Your task to perform on an android device: Empty the shopping cart on bestbuy. Search for alienware aurora on bestbuy, select the first entry, and add it to the cart. Image 0: 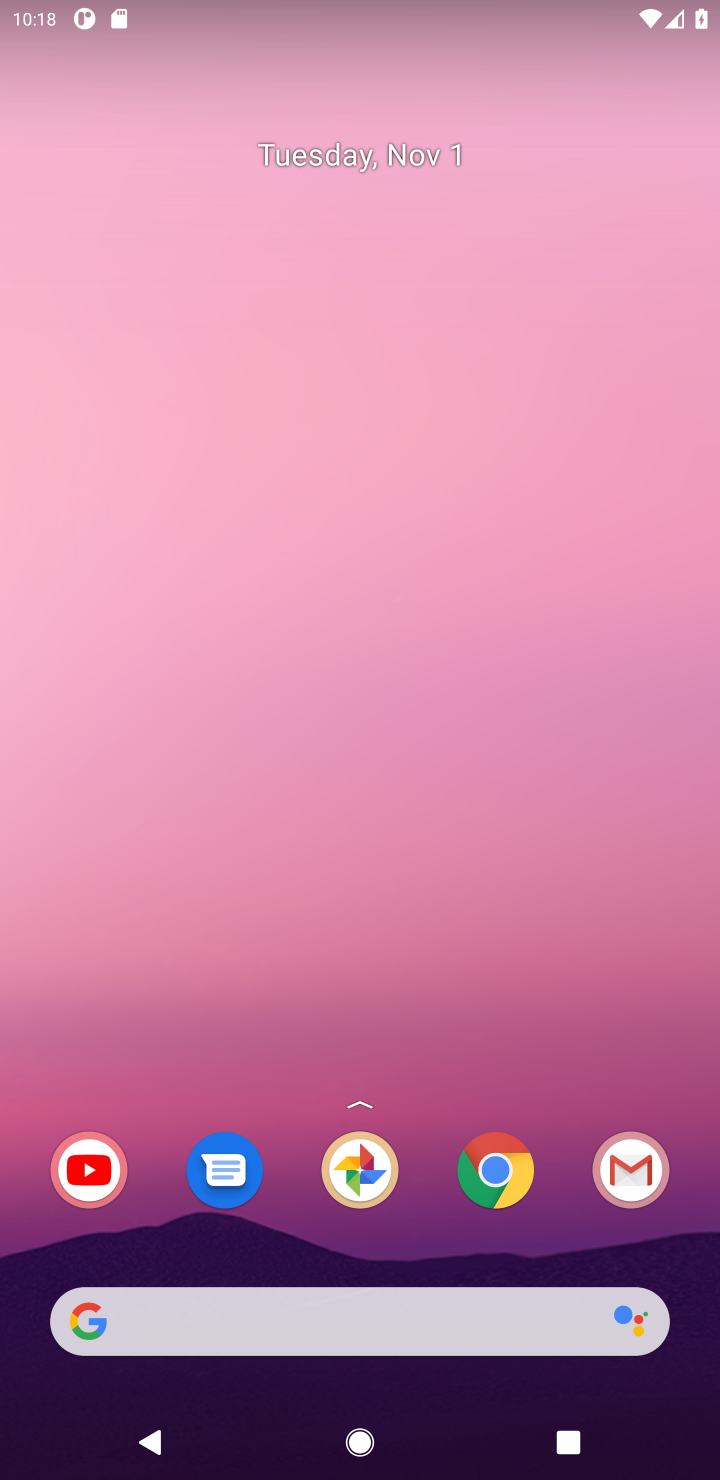
Step 0: click (528, 1179)
Your task to perform on an android device: Empty the shopping cart on bestbuy. Search for alienware aurora on bestbuy, select the first entry, and add it to the cart. Image 1: 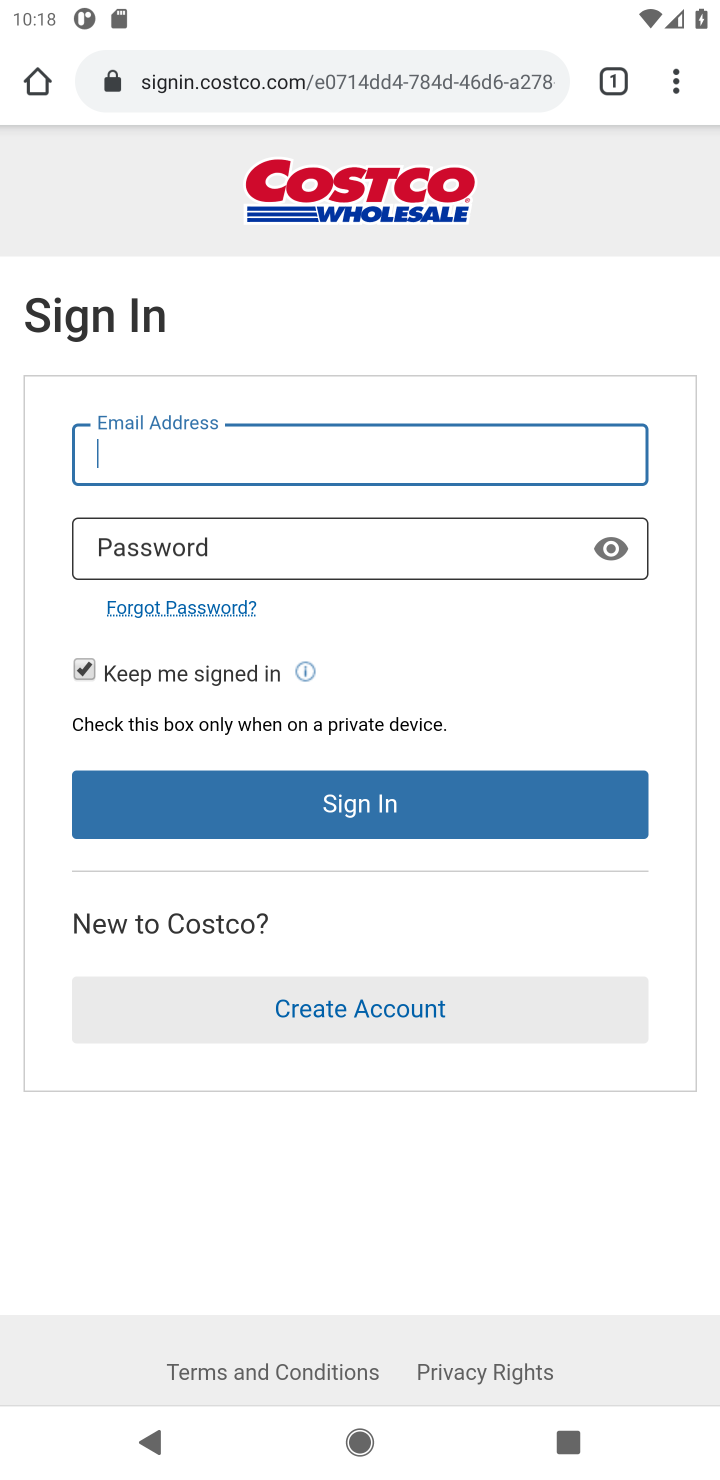
Step 1: click (382, 60)
Your task to perform on an android device: Empty the shopping cart on bestbuy. Search for alienware aurora on bestbuy, select the first entry, and add it to the cart. Image 2: 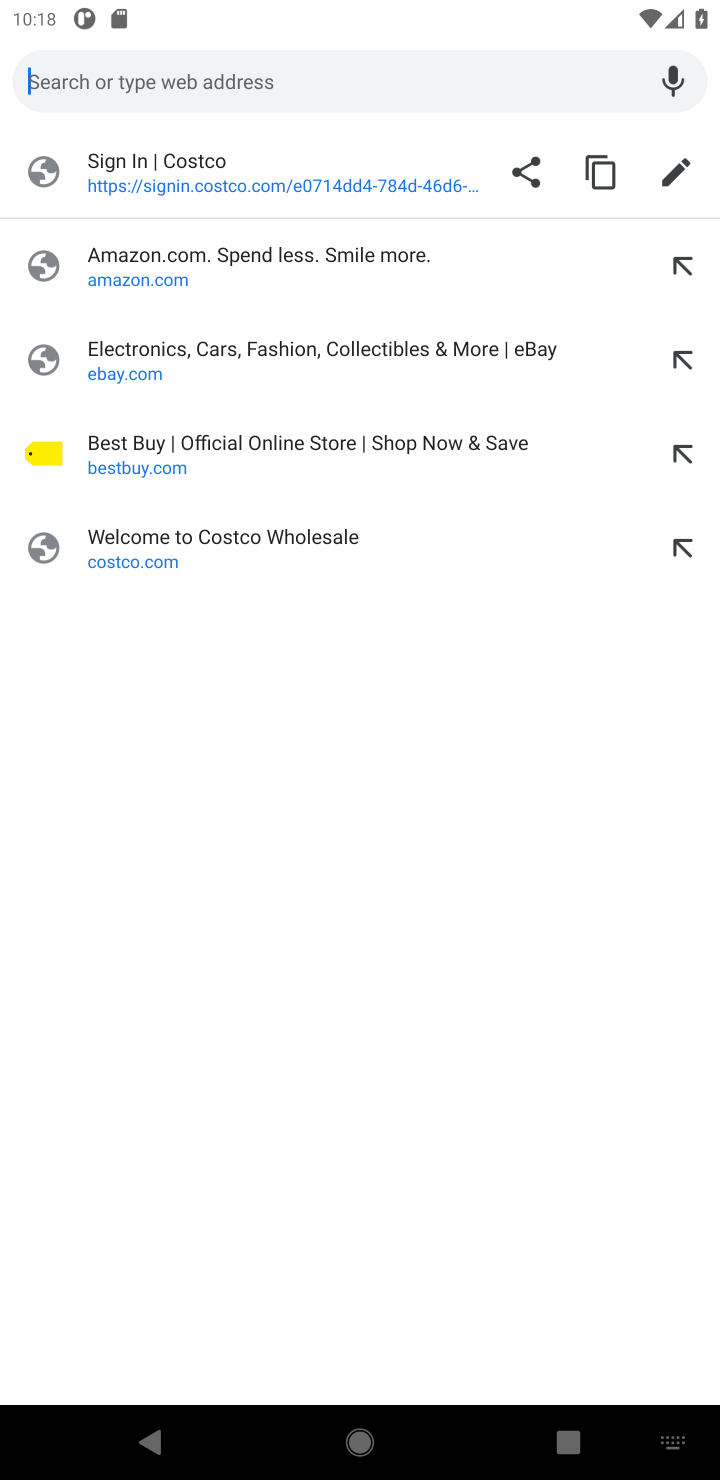
Step 2: type "bestbuy"
Your task to perform on an android device: Empty the shopping cart on bestbuy. Search for alienware aurora on bestbuy, select the first entry, and add it to the cart. Image 3: 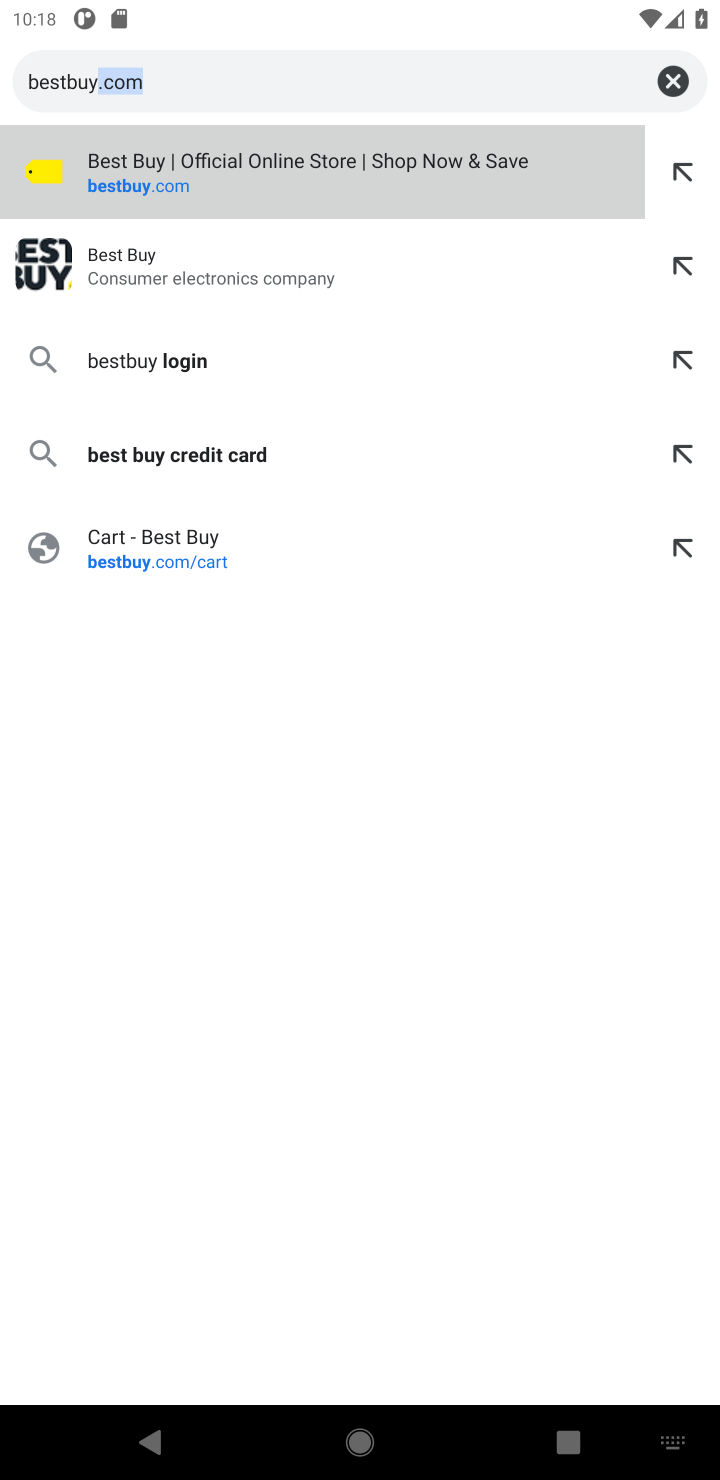
Step 3: type ""
Your task to perform on an android device: Empty the shopping cart on bestbuy. Search for alienware aurora on bestbuy, select the first entry, and add it to the cart. Image 4: 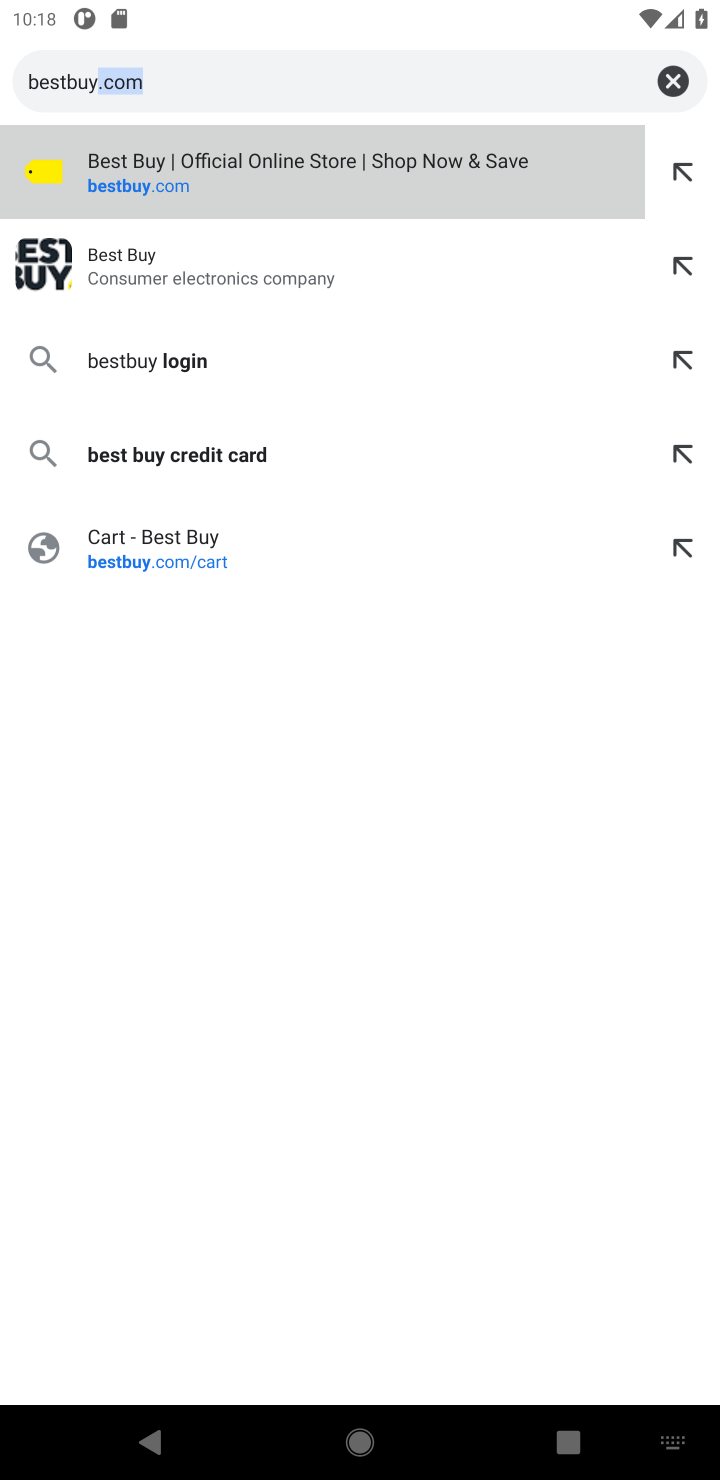
Step 4: press enter
Your task to perform on an android device: Empty the shopping cart on bestbuy. Search for alienware aurora on bestbuy, select the first entry, and add it to the cart. Image 5: 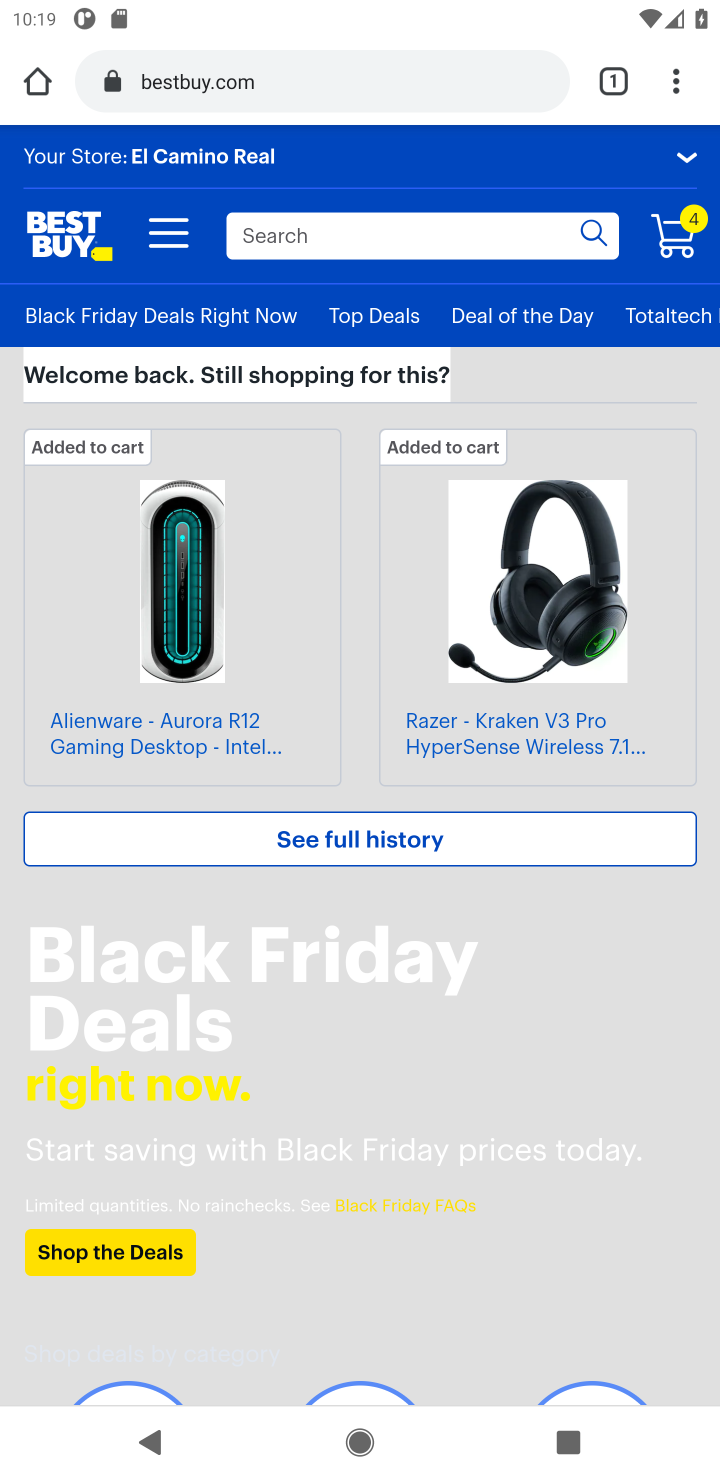
Step 5: click (675, 244)
Your task to perform on an android device: Empty the shopping cart on bestbuy. Search for alienware aurora on bestbuy, select the first entry, and add it to the cart. Image 6: 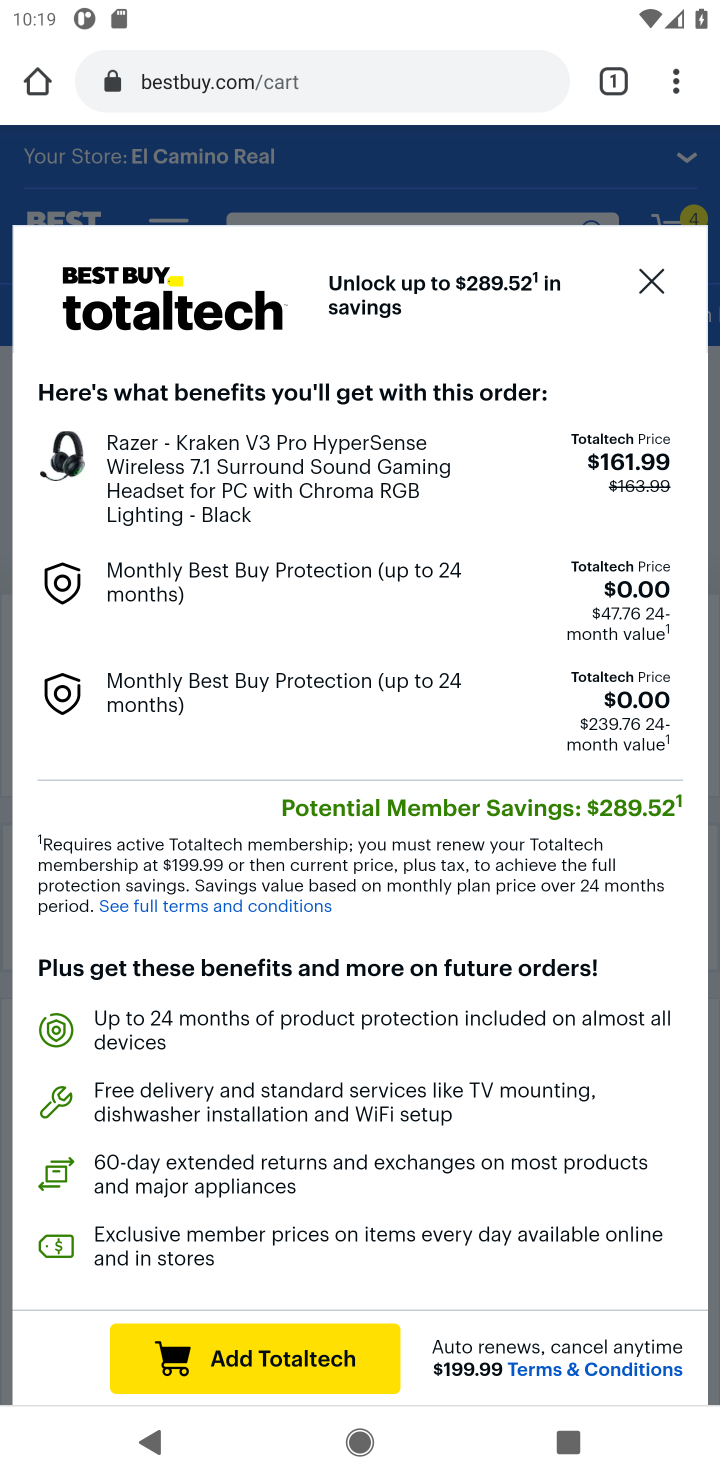
Step 6: click (638, 290)
Your task to perform on an android device: Empty the shopping cart on bestbuy. Search for alienware aurora on bestbuy, select the first entry, and add it to the cart. Image 7: 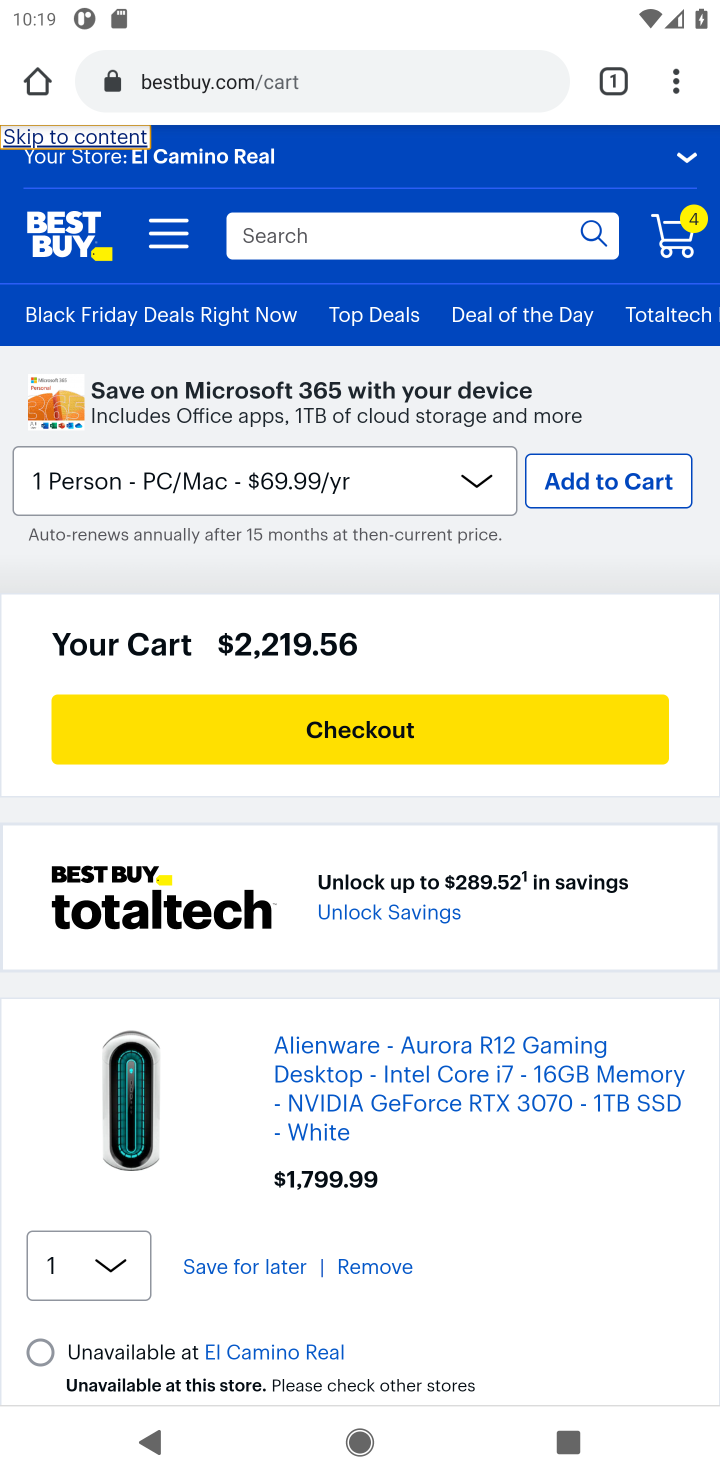
Step 7: click (368, 1273)
Your task to perform on an android device: Empty the shopping cart on bestbuy. Search for alienware aurora on bestbuy, select the first entry, and add it to the cart. Image 8: 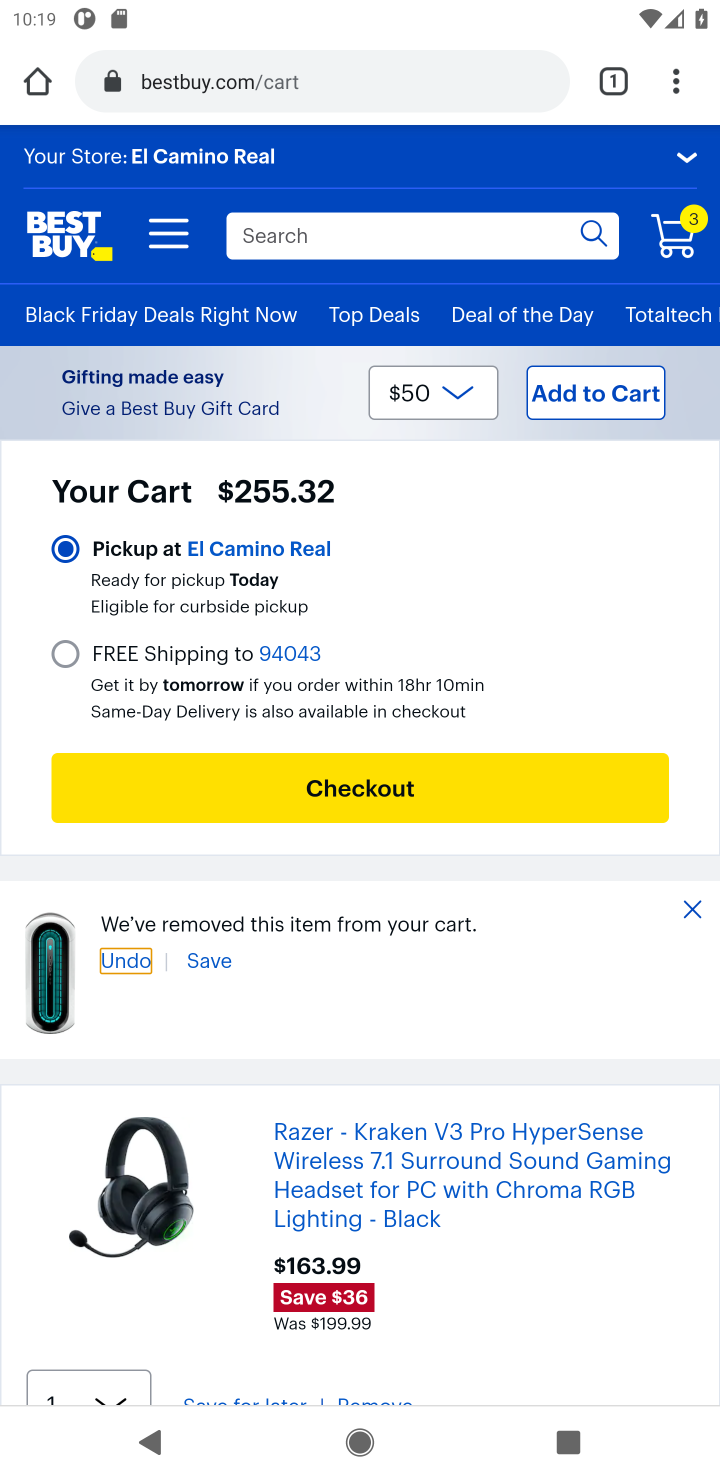
Step 8: drag from (406, 1285) to (403, 906)
Your task to perform on an android device: Empty the shopping cart on bestbuy. Search for alienware aurora on bestbuy, select the first entry, and add it to the cart. Image 9: 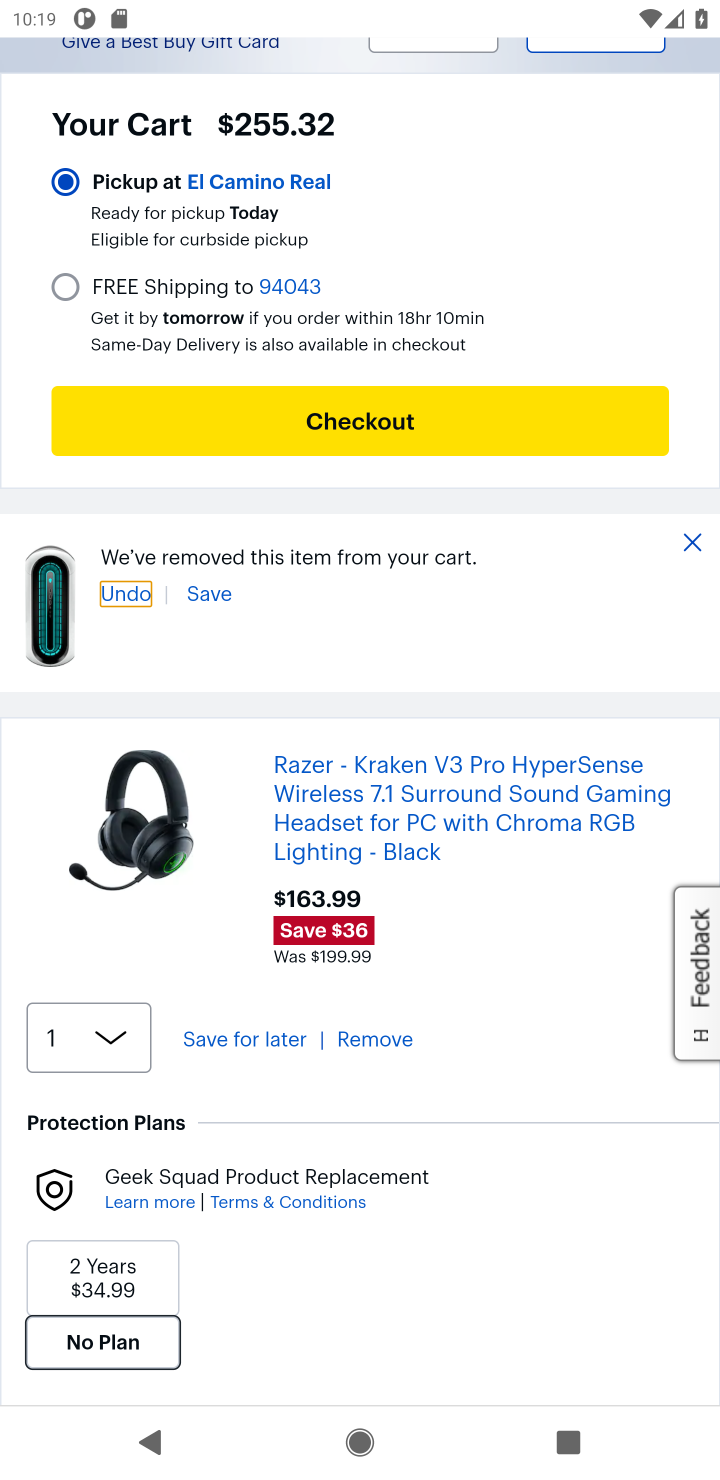
Step 9: click (365, 1066)
Your task to perform on an android device: Empty the shopping cart on bestbuy. Search for alienware aurora on bestbuy, select the first entry, and add it to the cart. Image 10: 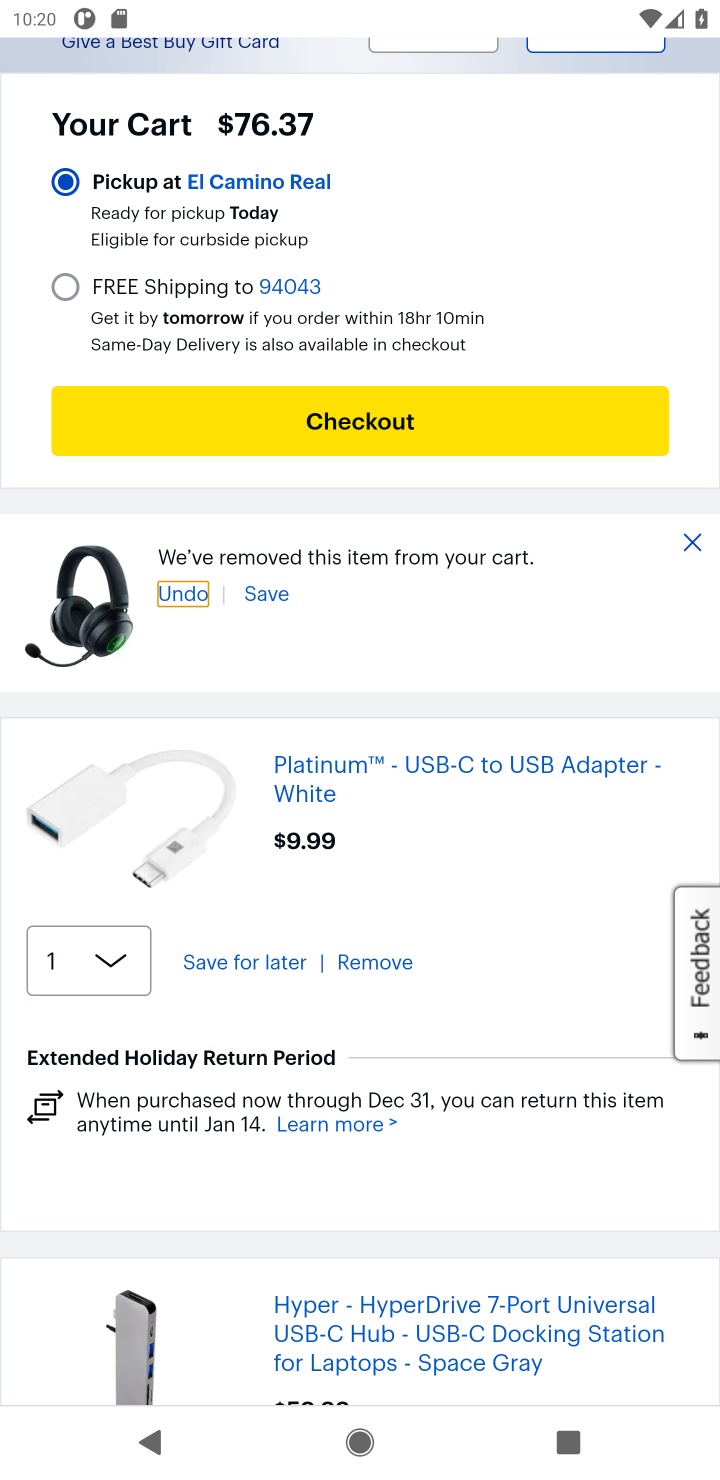
Step 10: click (375, 965)
Your task to perform on an android device: Empty the shopping cart on bestbuy. Search for alienware aurora on bestbuy, select the first entry, and add it to the cart. Image 11: 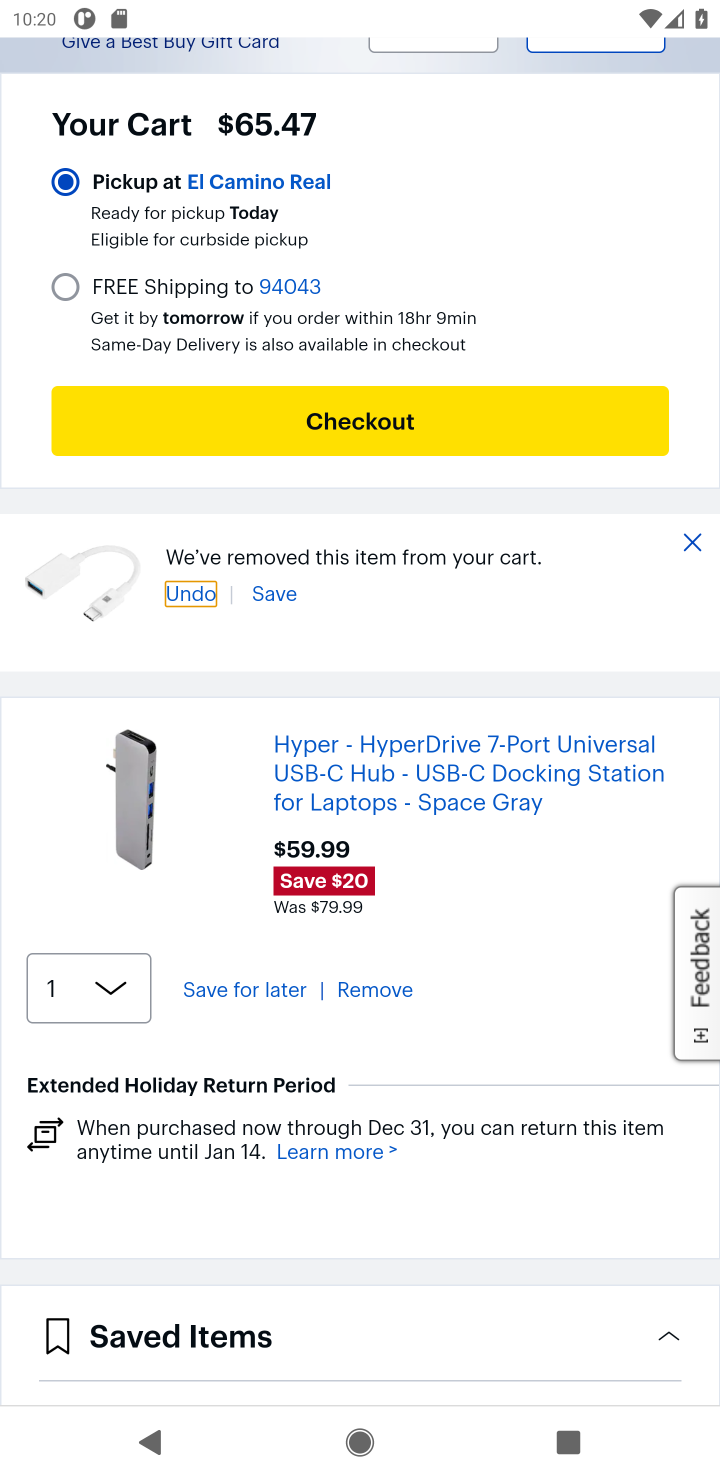
Step 11: click (377, 997)
Your task to perform on an android device: Empty the shopping cart on bestbuy. Search for alienware aurora on bestbuy, select the first entry, and add it to the cart. Image 12: 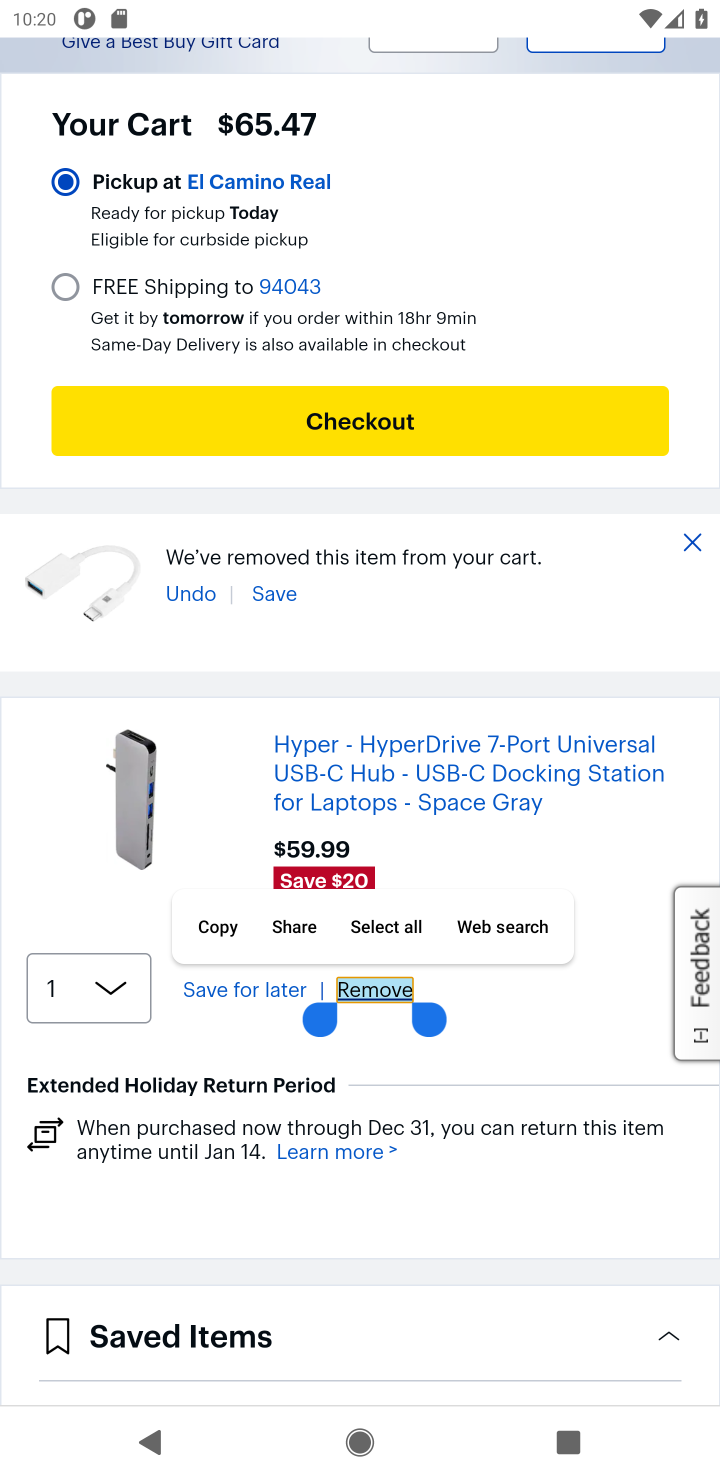
Step 12: click (383, 1029)
Your task to perform on an android device: Empty the shopping cart on bestbuy. Search for alienware aurora on bestbuy, select the first entry, and add it to the cart. Image 13: 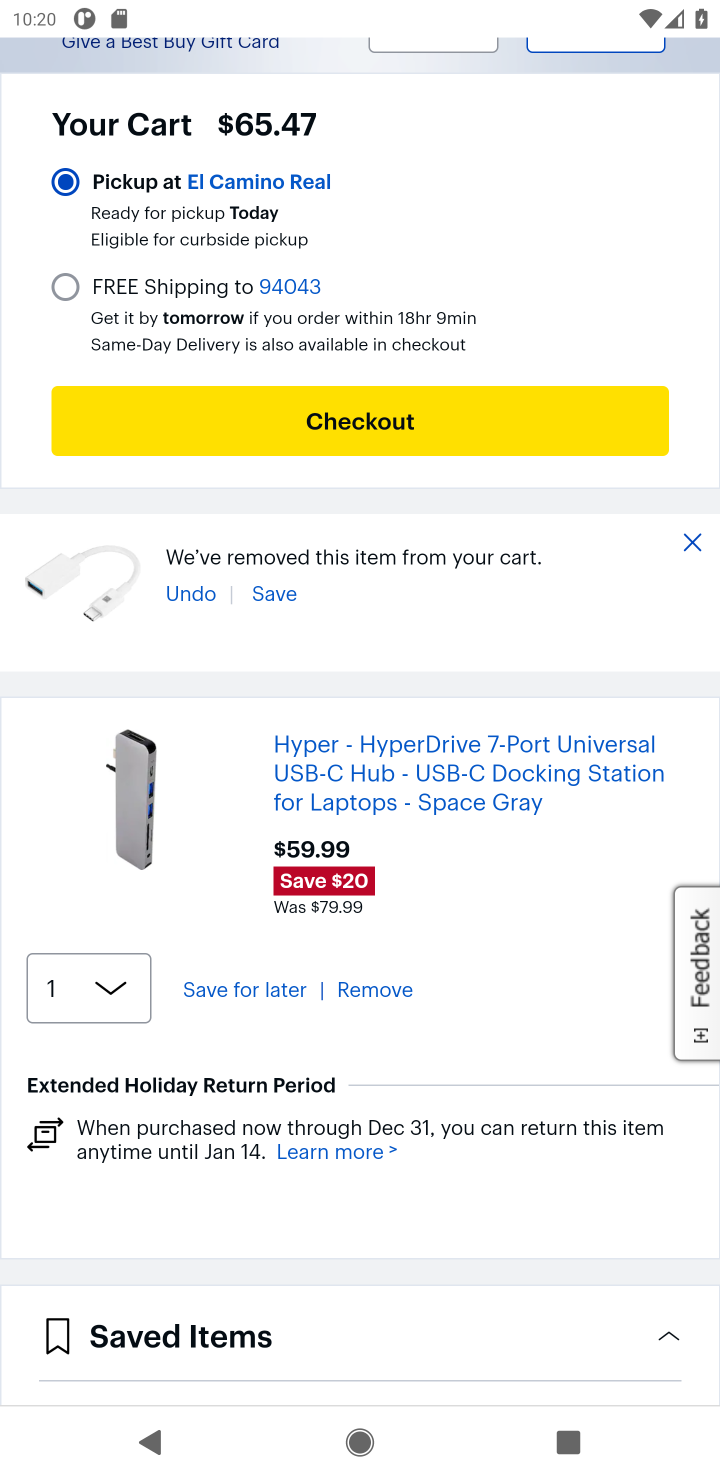
Step 13: click (377, 994)
Your task to perform on an android device: Empty the shopping cart on bestbuy. Search for alienware aurora on bestbuy, select the first entry, and add it to the cart. Image 14: 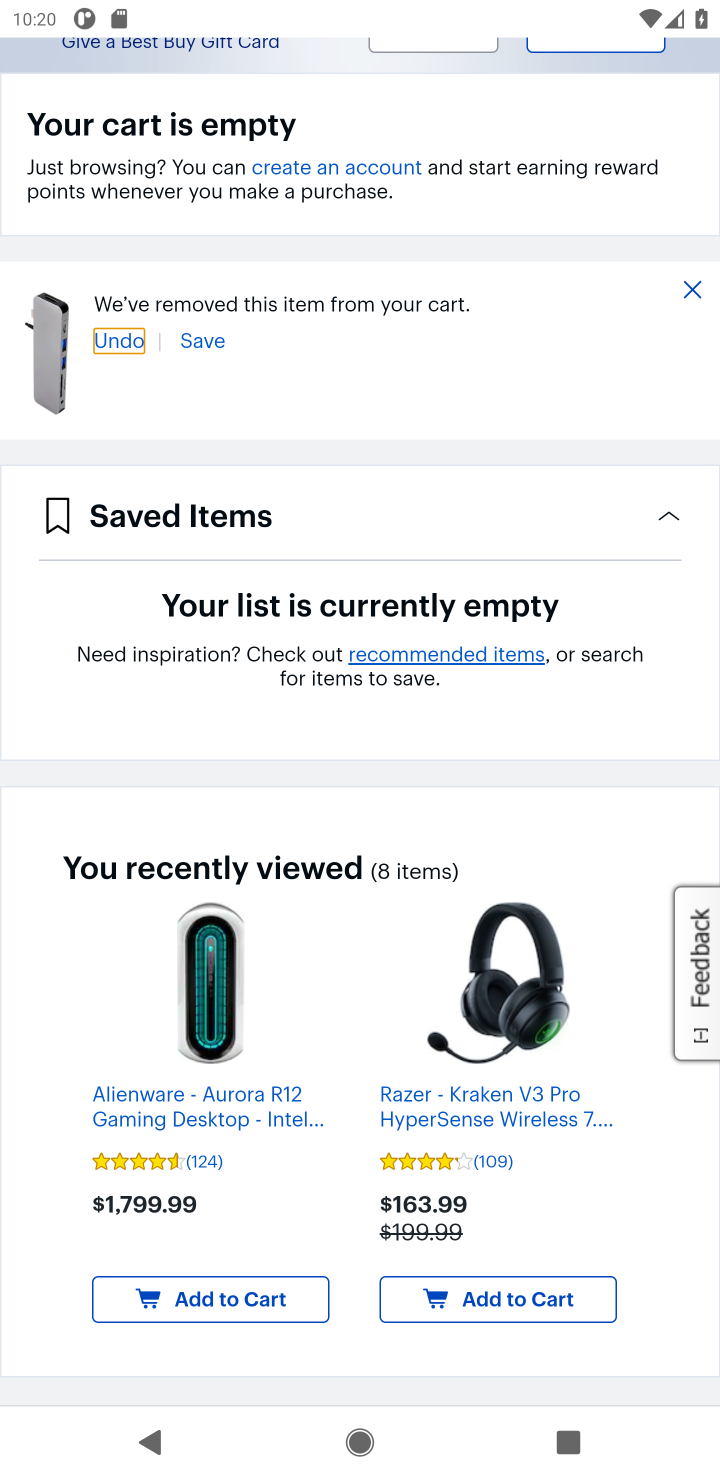
Step 14: drag from (369, 453) to (407, 744)
Your task to perform on an android device: Empty the shopping cart on bestbuy. Search for alienware aurora on bestbuy, select the first entry, and add it to the cart. Image 15: 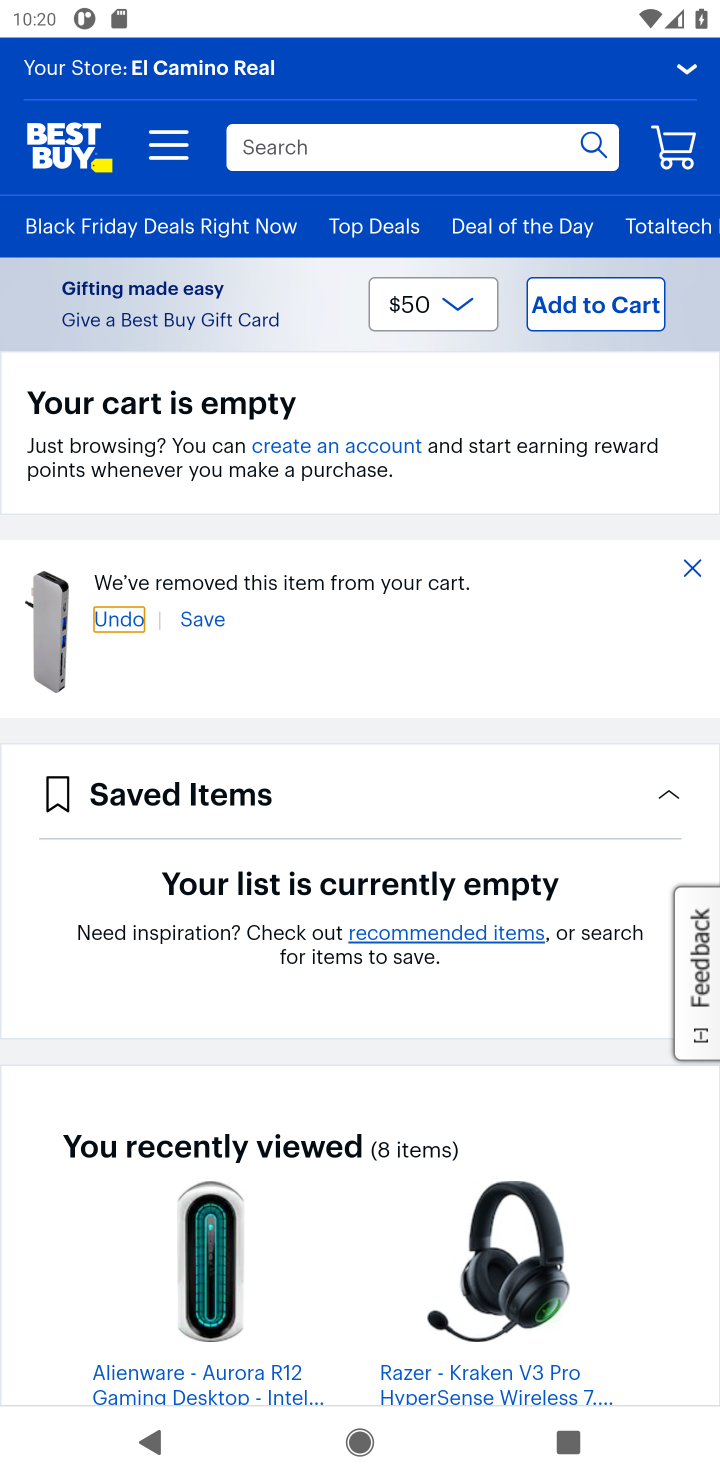
Step 15: click (366, 151)
Your task to perform on an android device: Empty the shopping cart on bestbuy. Search for alienware aurora on bestbuy, select the first entry, and add it to the cart. Image 16: 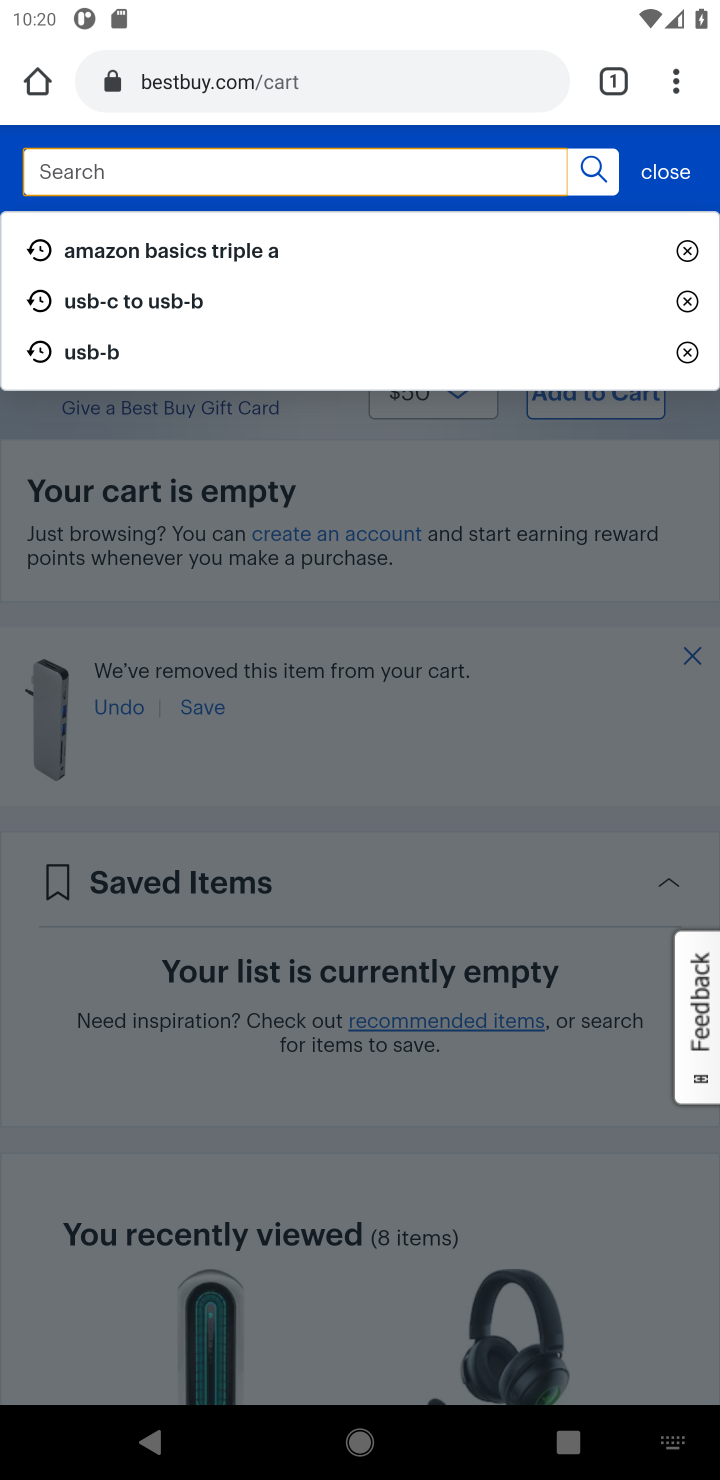
Step 16: type "alienware aurora"
Your task to perform on an android device: Empty the shopping cart on bestbuy. Search for alienware aurora on bestbuy, select the first entry, and add it to the cart. Image 17: 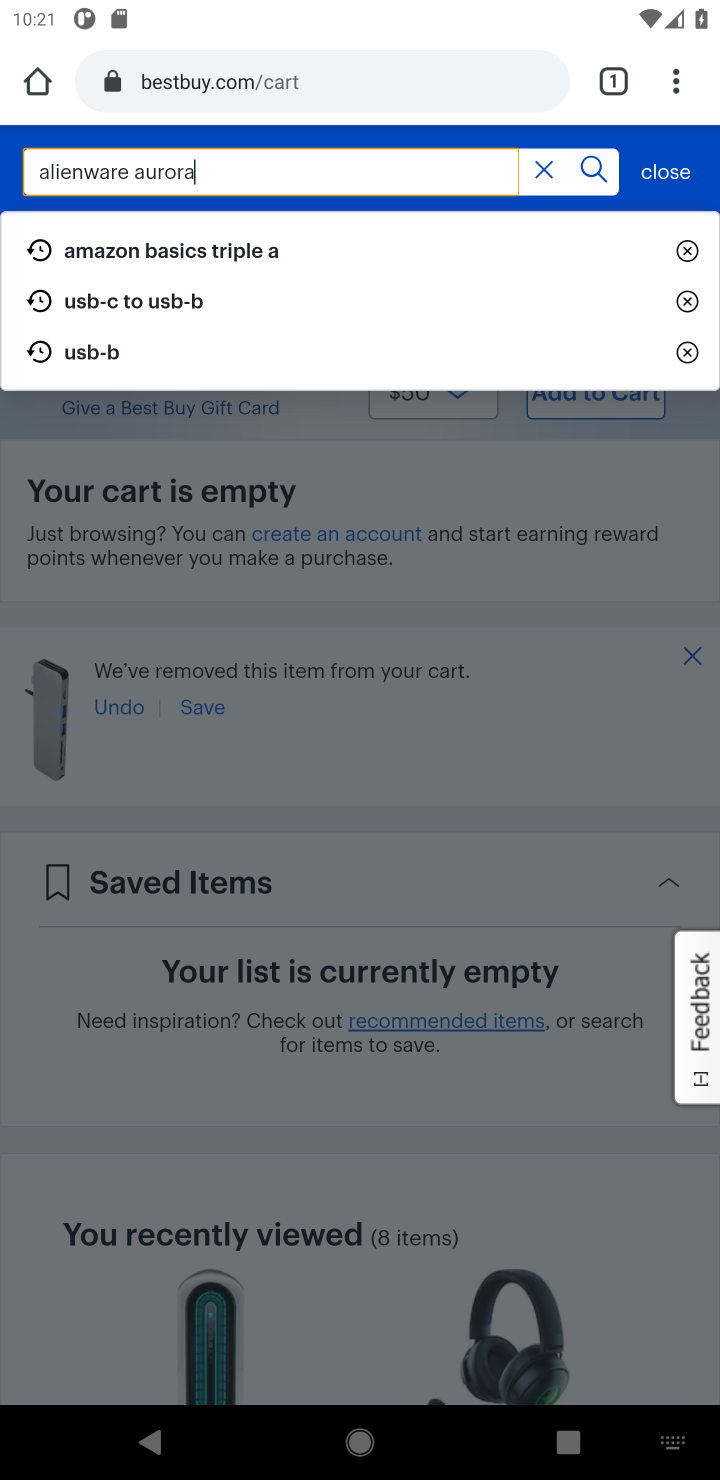
Step 17: type ""
Your task to perform on an android device: Empty the shopping cart on bestbuy. Search for alienware aurora on bestbuy, select the first entry, and add it to the cart. Image 18: 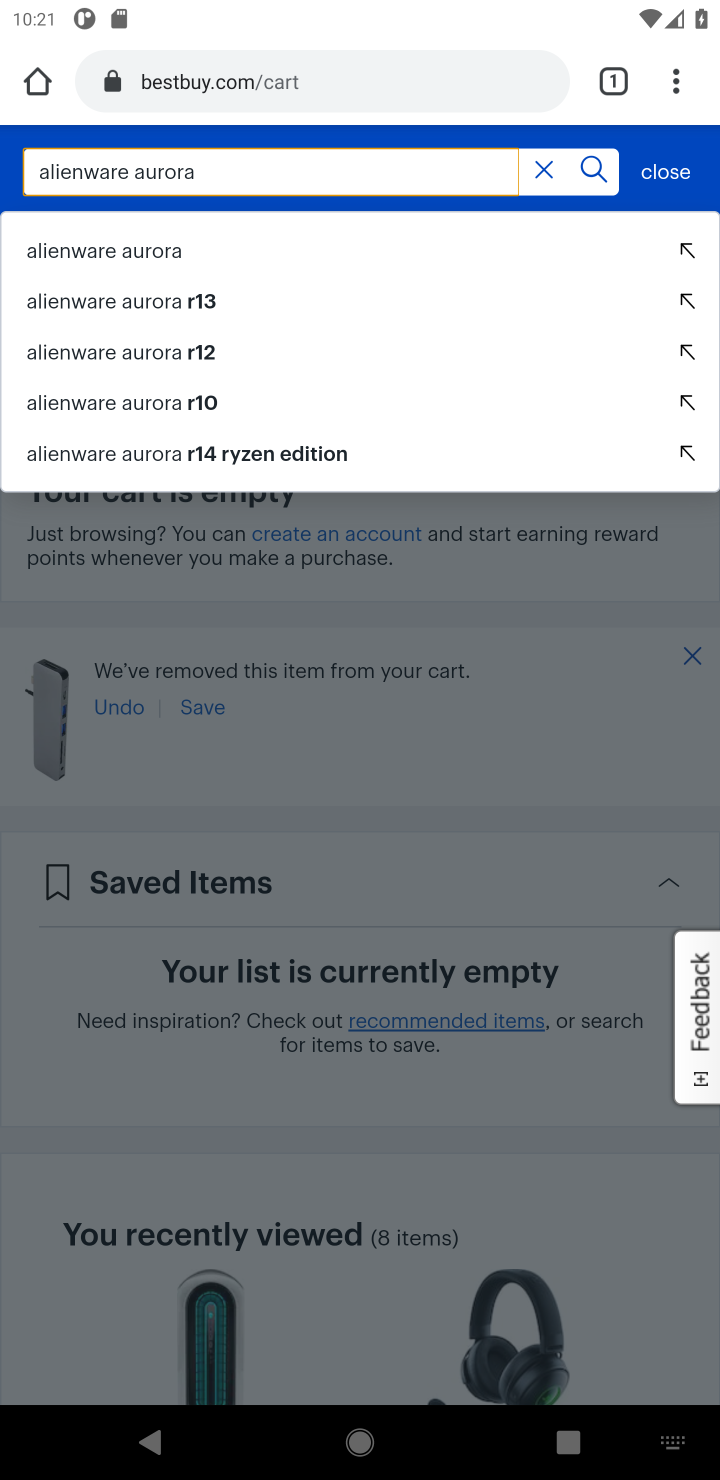
Step 18: press enter
Your task to perform on an android device: Empty the shopping cart on bestbuy. Search for alienware aurora on bestbuy, select the first entry, and add it to the cart. Image 19: 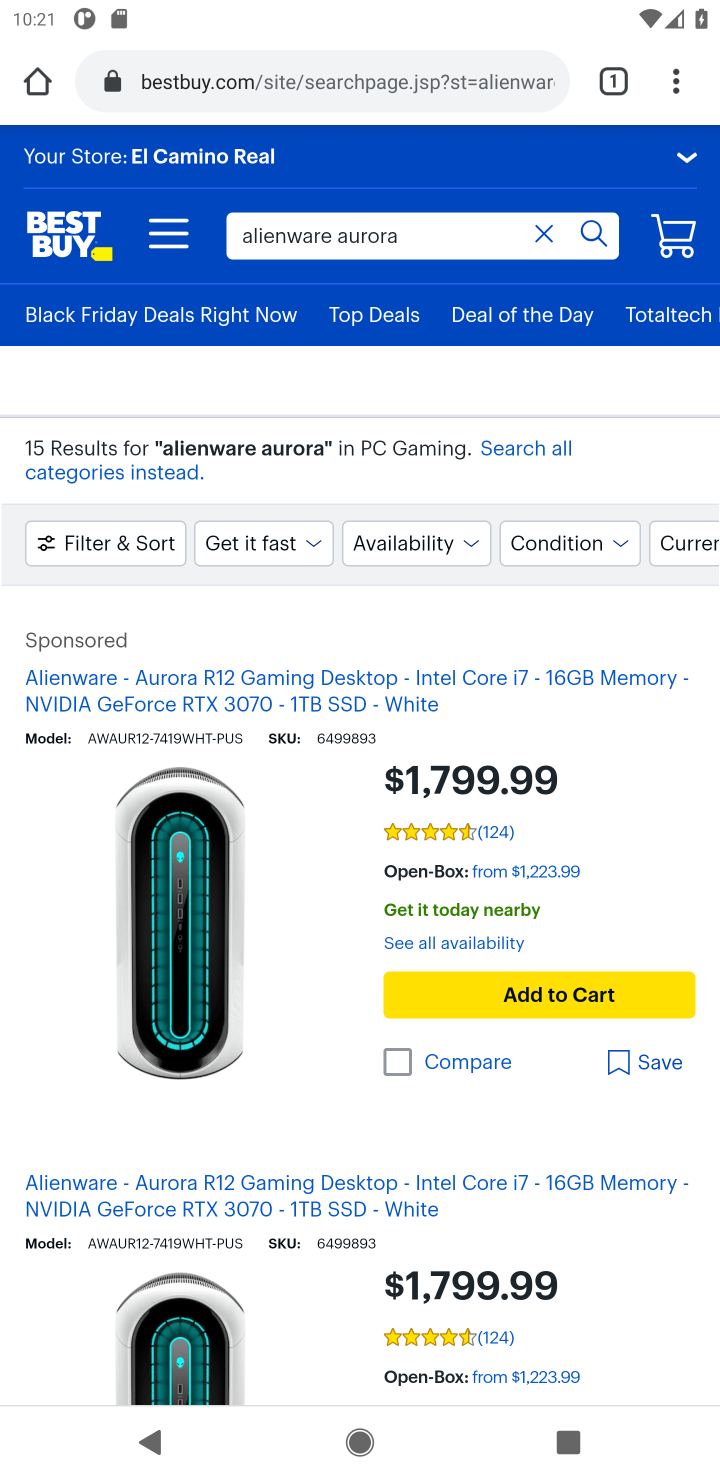
Step 19: click (239, 686)
Your task to perform on an android device: Empty the shopping cart on bestbuy. Search for alienware aurora on bestbuy, select the first entry, and add it to the cart. Image 20: 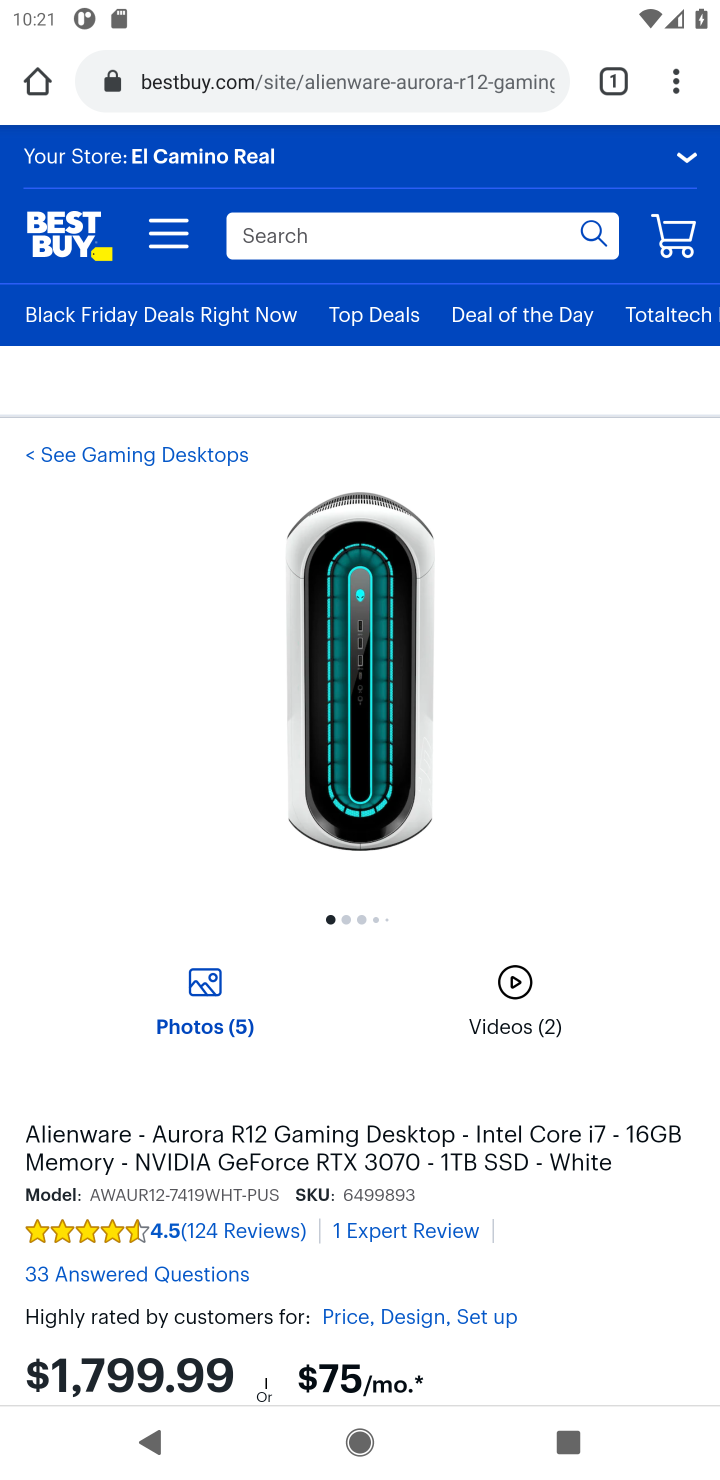
Step 20: drag from (316, 1228) to (334, 493)
Your task to perform on an android device: Empty the shopping cart on bestbuy. Search for alienware aurora on bestbuy, select the first entry, and add it to the cart. Image 21: 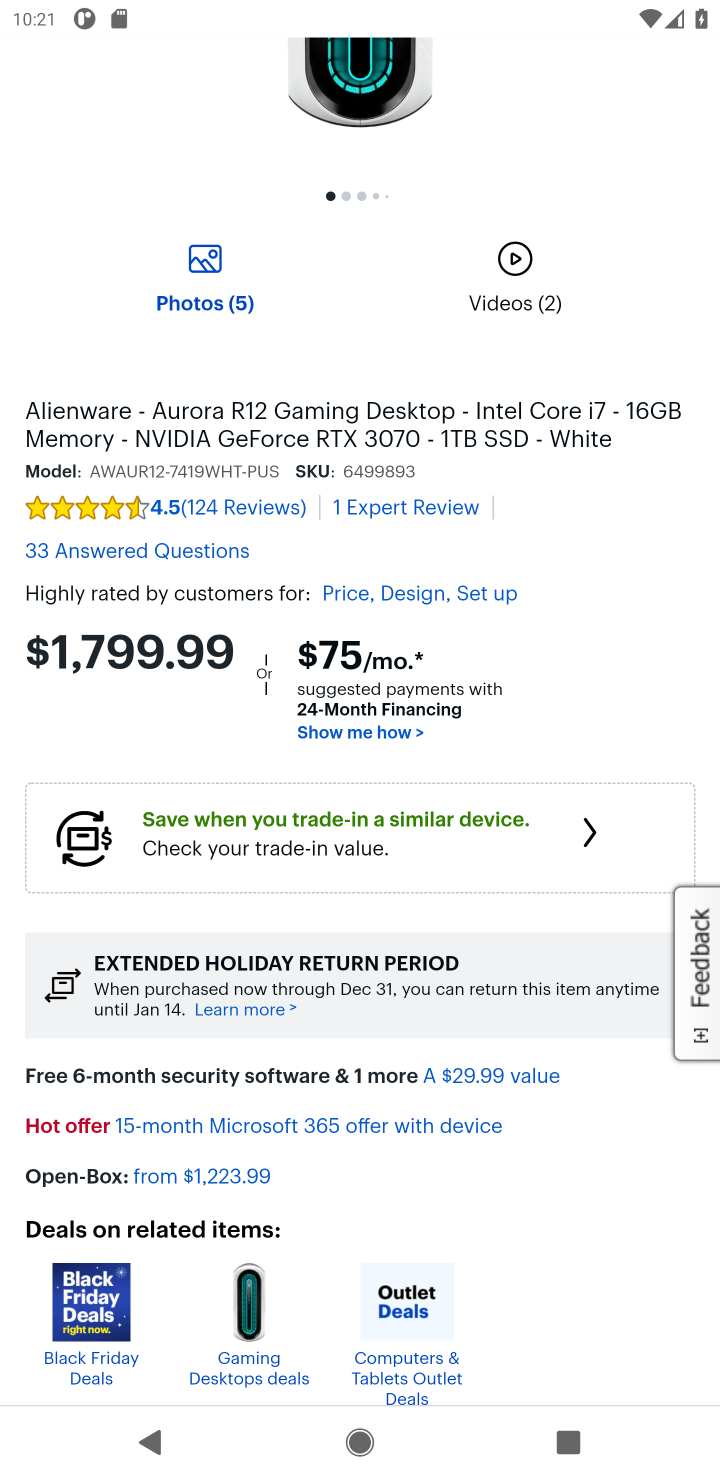
Step 21: drag from (468, 1200) to (479, 645)
Your task to perform on an android device: Empty the shopping cart on bestbuy. Search for alienware aurora on bestbuy, select the first entry, and add it to the cart. Image 22: 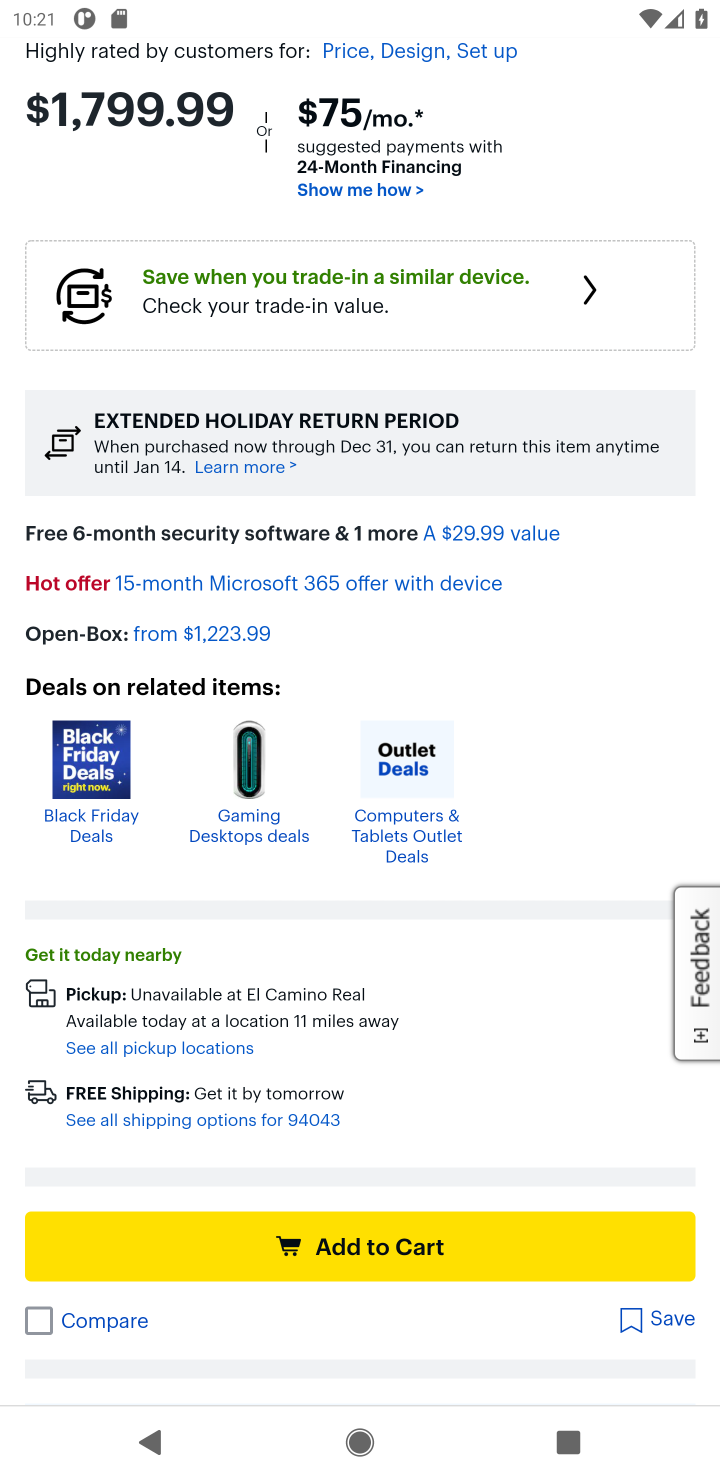
Step 22: click (405, 1248)
Your task to perform on an android device: Empty the shopping cart on bestbuy. Search for alienware aurora on bestbuy, select the first entry, and add it to the cart. Image 23: 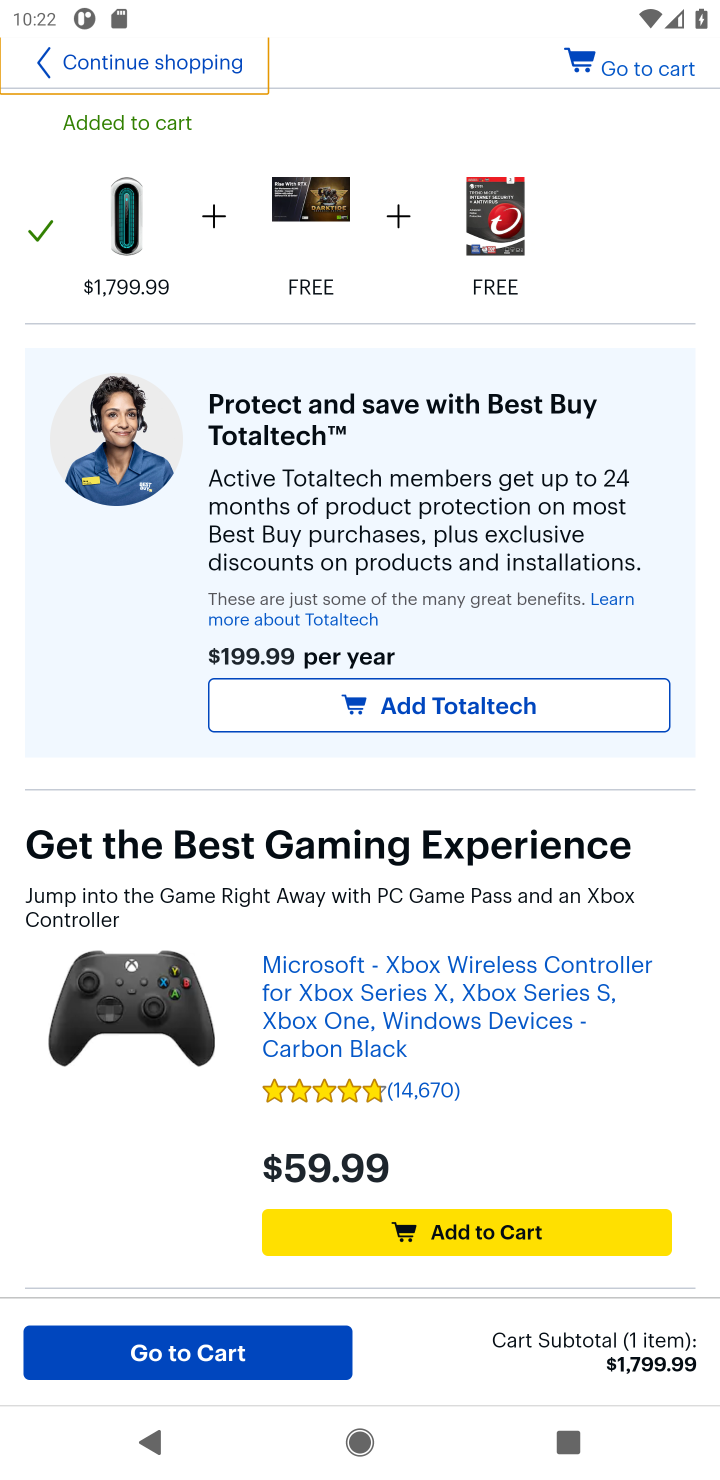
Step 23: click (174, 1341)
Your task to perform on an android device: Empty the shopping cart on bestbuy. Search for alienware aurora on bestbuy, select the first entry, and add it to the cart. Image 24: 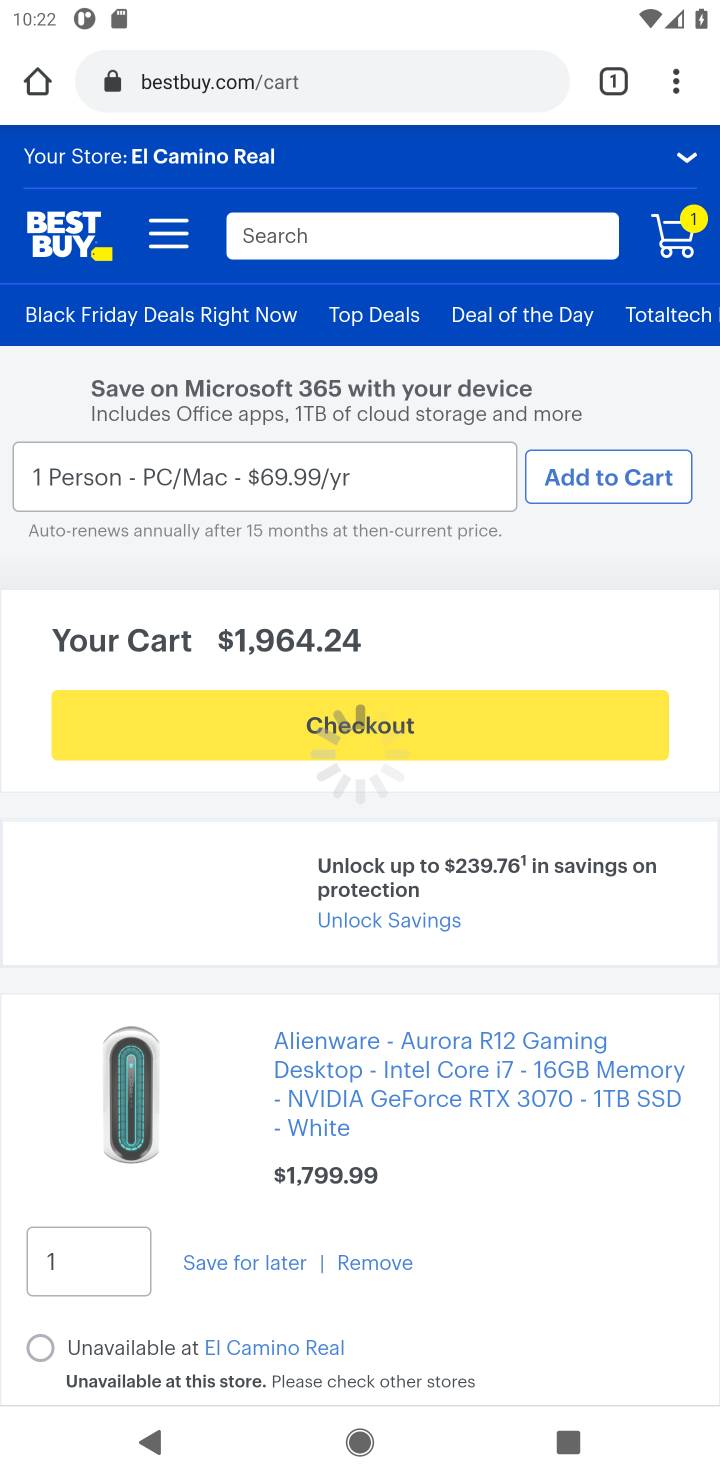
Step 24: drag from (396, 1115) to (532, 728)
Your task to perform on an android device: Empty the shopping cart on bestbuy. Search for alienware aurora on bestbuy, select the first entry, and add it to the cart. Image 25: 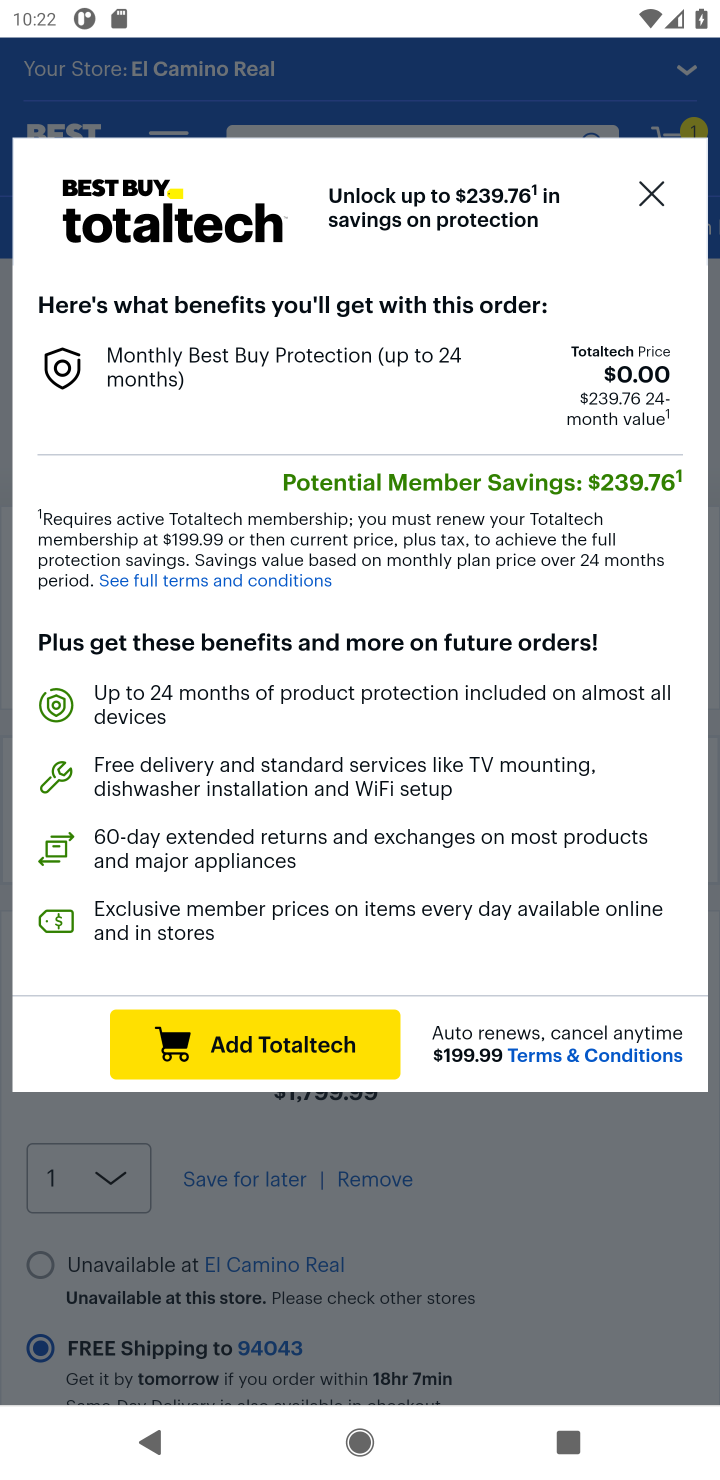
Step 25: click (651, 194)
Your task to perform on an android device: Empty the shopping cart on bestbuy. Search for alienware aurora on bestbuy, select the first entry, and add it to the cart. Image 26: 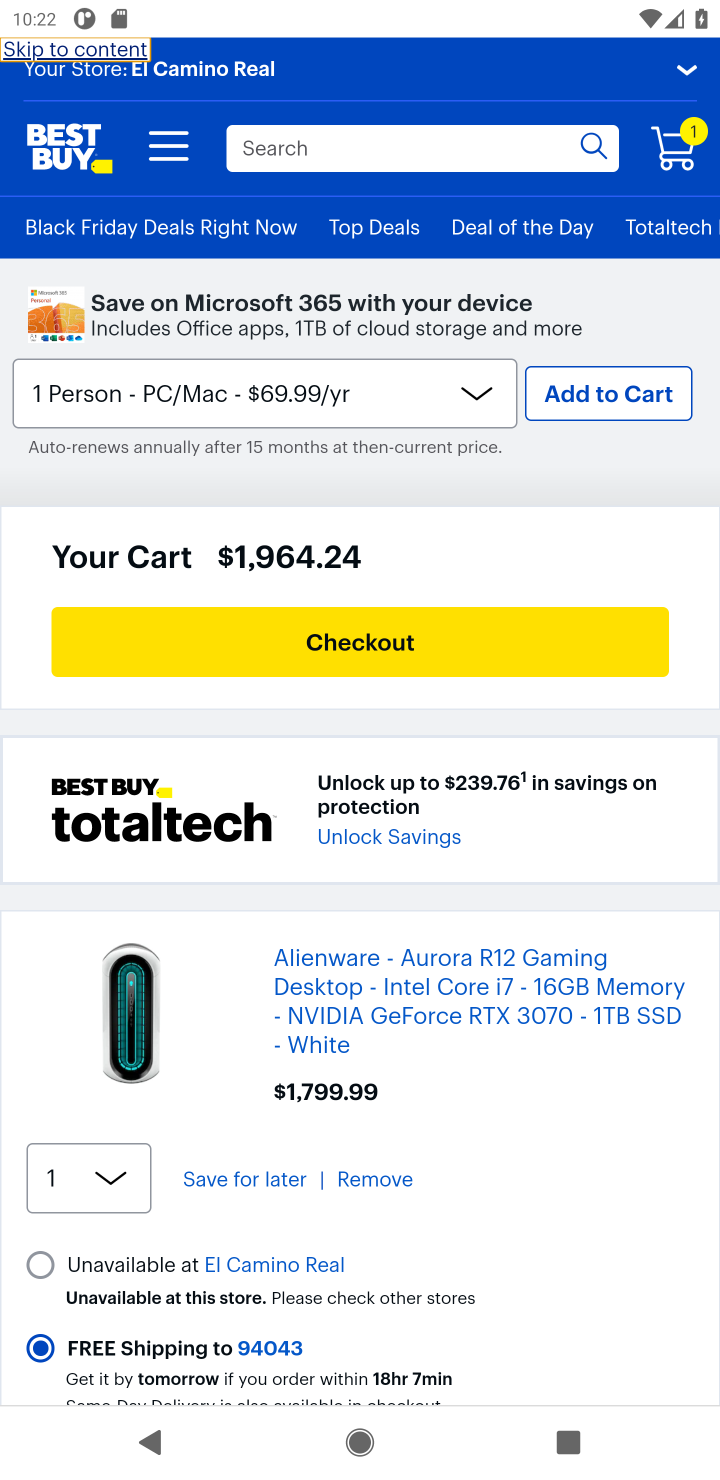
Step 26: task complete